Your task to perform on an android device: search for starred emails in the gmail app Image 0: 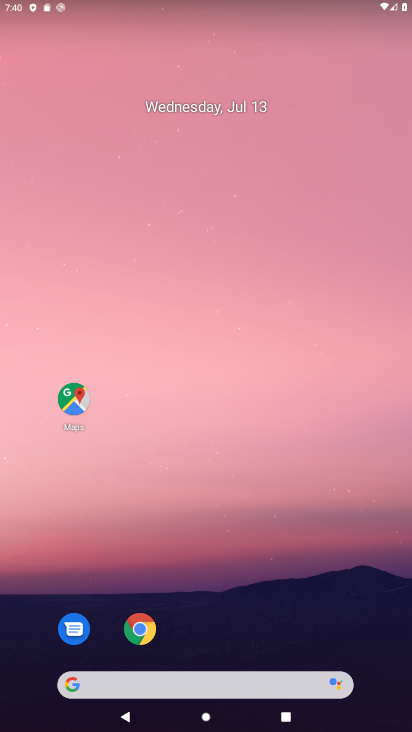
Step 0: click (228, 27)
Your task to perform on an android device: search for starred emails in the gmail app Image 1: 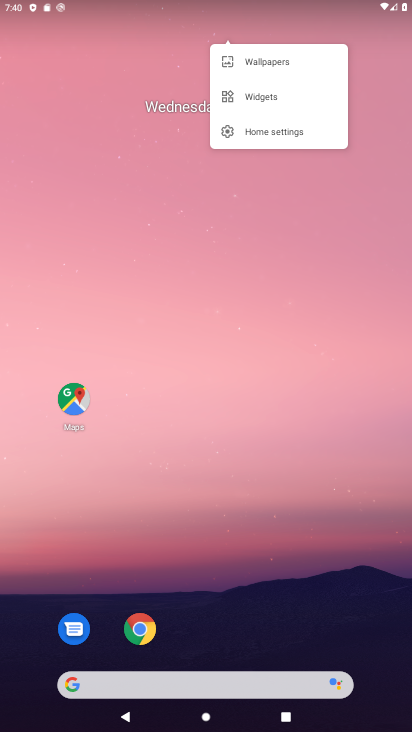
Step 1: drag from (20, 703) to (265, 99)
Your task to perform on an android device: search for starred emails in the gmail app Image 2: 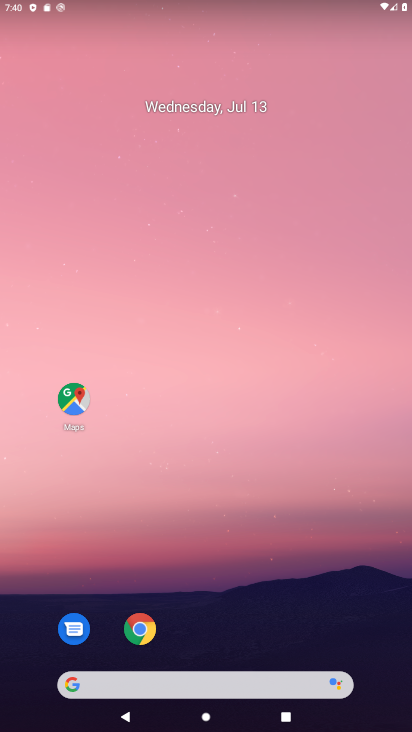
Step 2: drag from (41, 720) to (302, 80)
Your task to perform on an android device: search for starred emails in the gmail app Image 3: 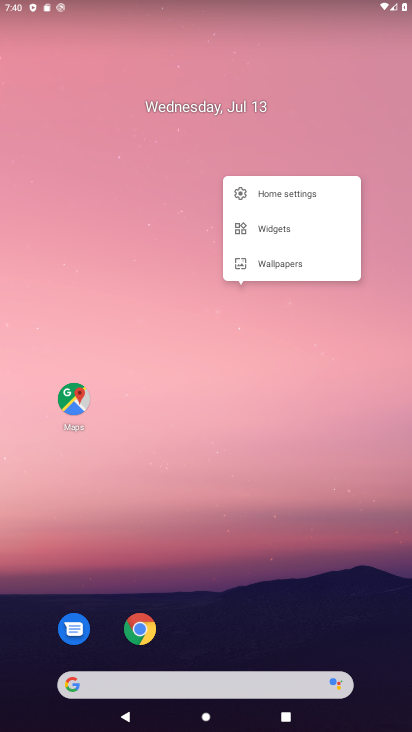
Step 3: drag from (83, 424) to (129, 256)
Your task to perform on an android device: search for starred emails in the gmail app Image 4: 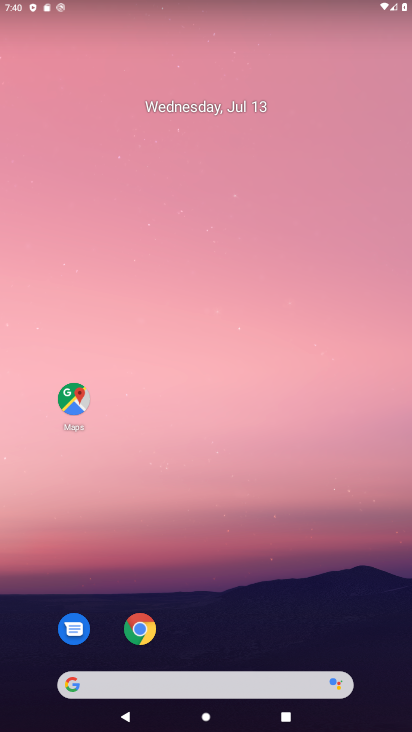
Step 4: drag from (49, 697) to (223, 148)
Your task to perform on an android device: search for starred emails in the gmail app Image 5: 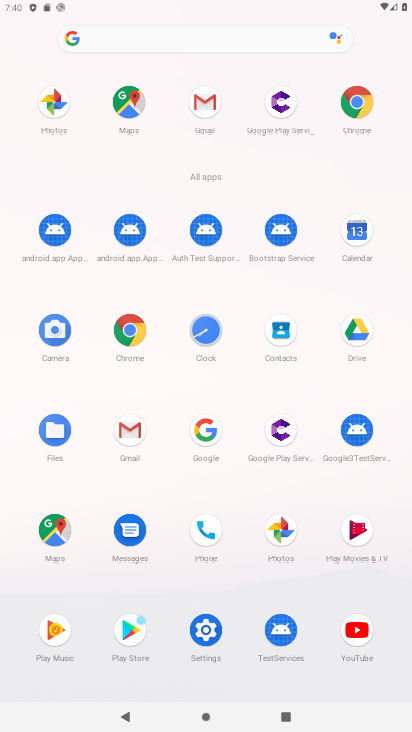
Step 5: click (204, 109)
Your task to perform on an android device: search for starred emails in the gmail app Image 6: 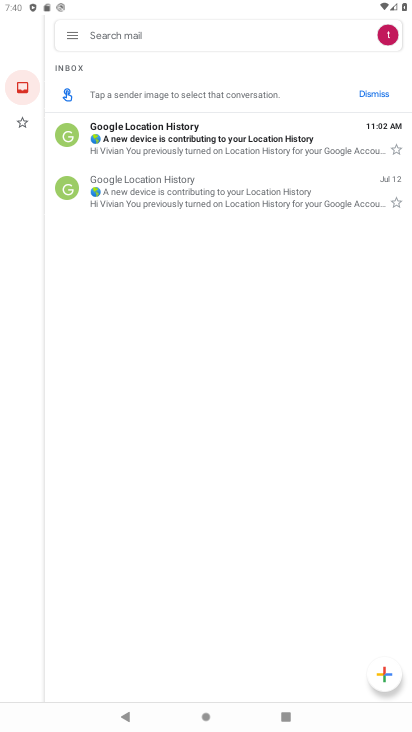
Step 6: click (77, 43)
Your task to perform on an android device: search for starred emails in the gmail app Image 7: 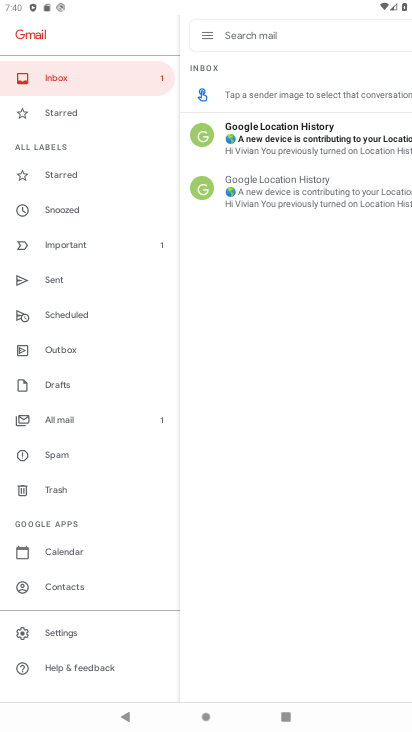
Step 7: click (59, 175)
Your task to perform on an android device: search for starred emails in the gmail app Image 8: 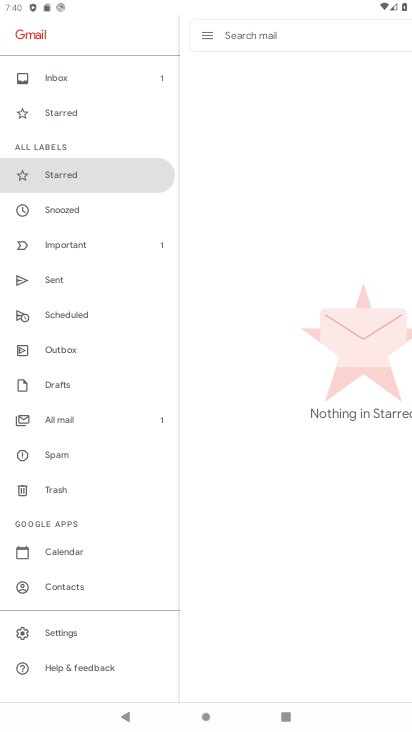
Step 8: task complete